Your task to perform on an android device: check battery use Image 0: 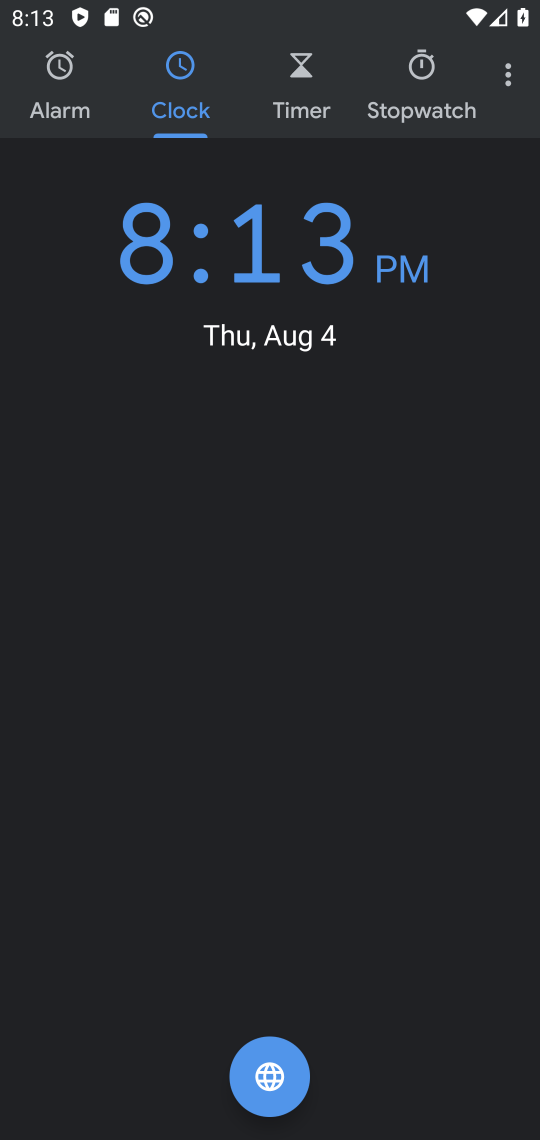
Step 0: press home button
Your task to perform on an android device: check battery use Image 1: 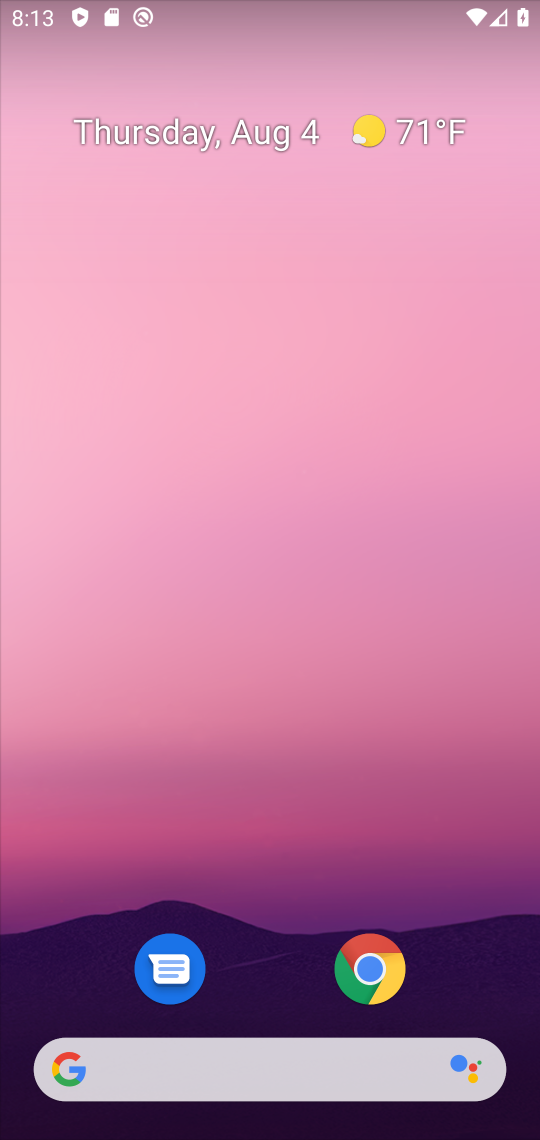
Step 1: drag from (280, 1001) to (280, 27)
Your task to perform on an android device: check battery use Image 2: 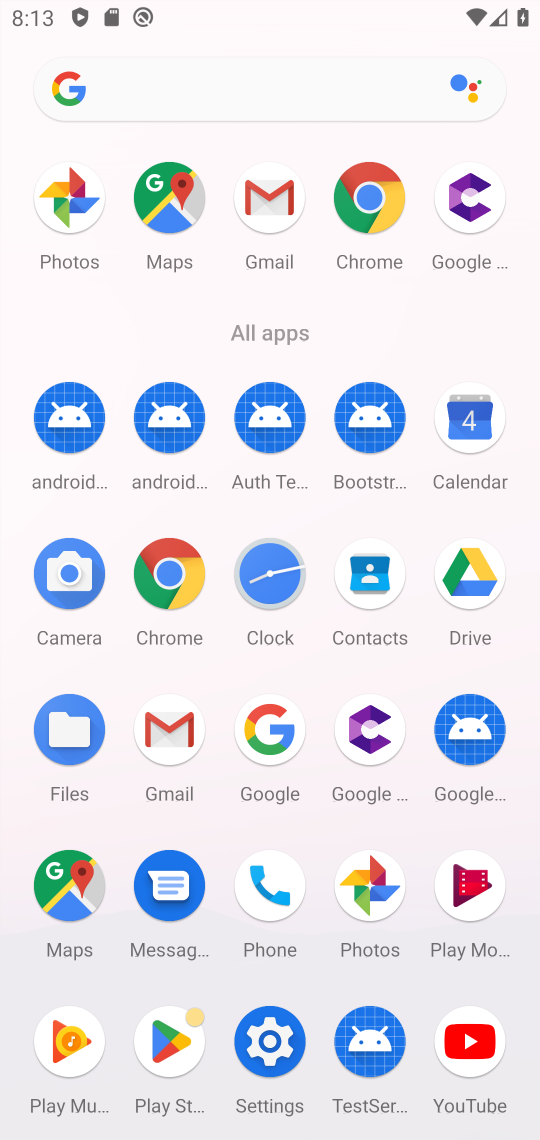
Step 2: click (265, 1036)
Your task to perform on an android device: check battery use Image 3: 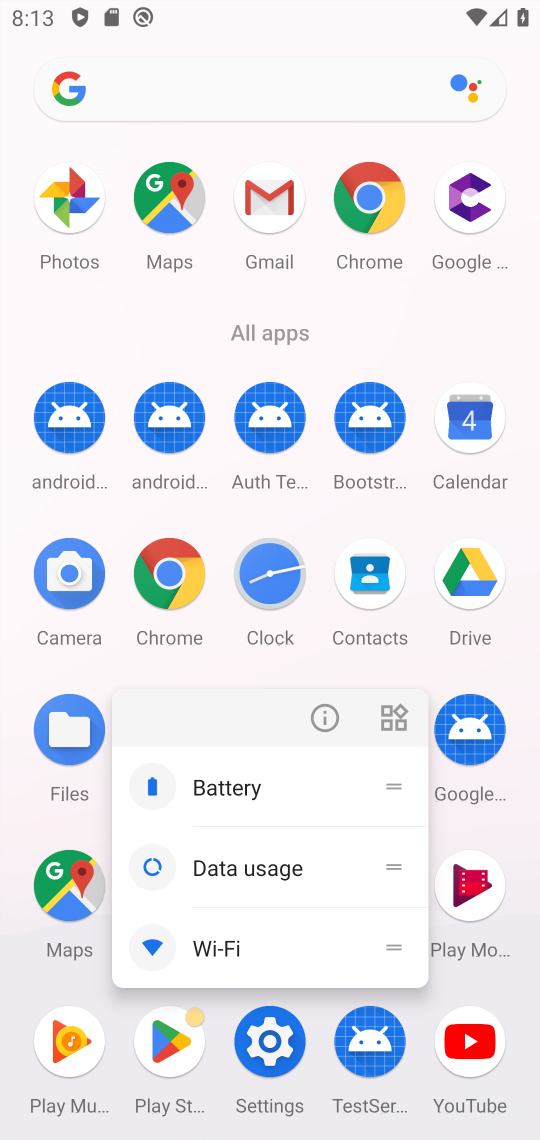
Step 3: click (268, 1028)
Your task to perform on an android device: check battery use Image 4: 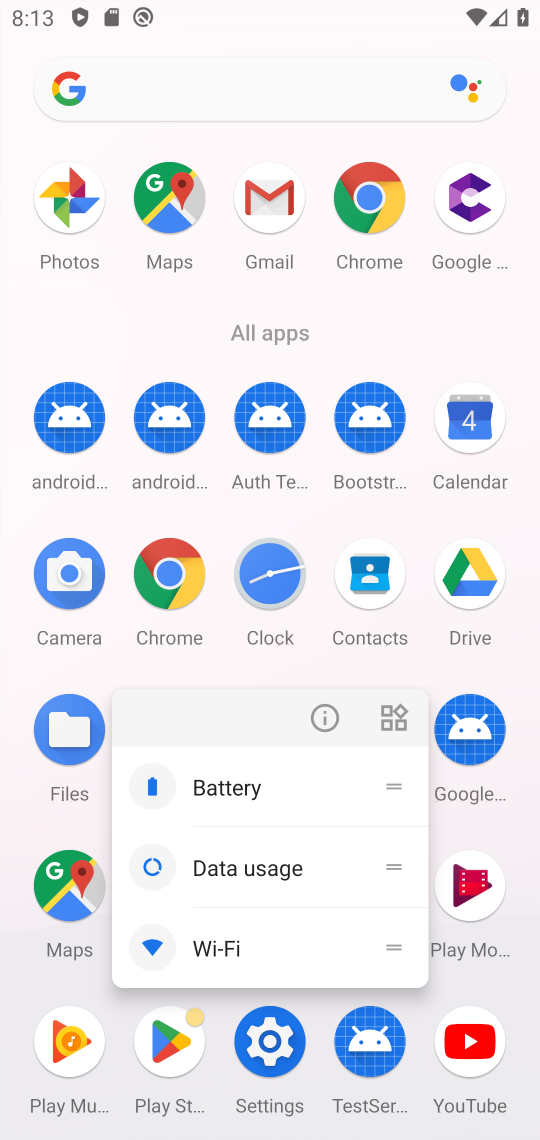
Step 4: click (268, 1027)
Your task to perform on an android device: check battery use Image 5: 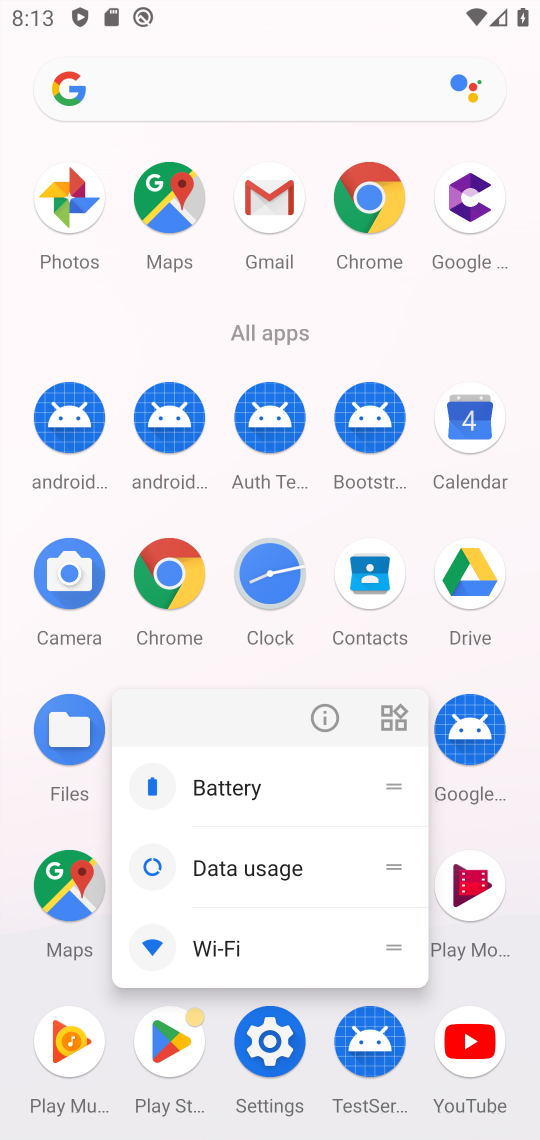
Step 5: click (263, 1037)
Your task to perform on an android device: check battery use Image 6: 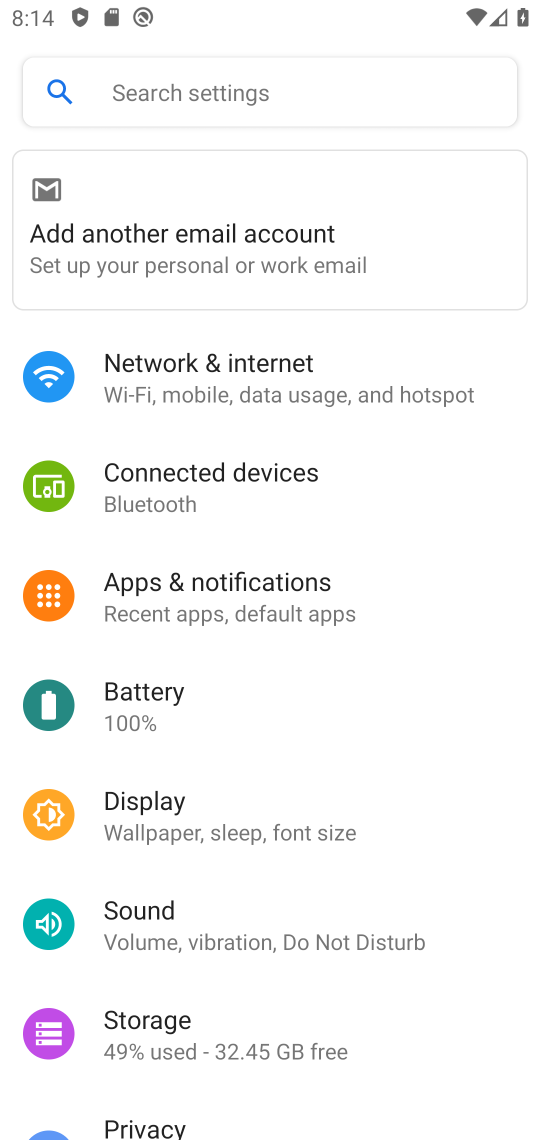
Step 6: click (208, 706)
Your task to perform on an android device: check battery use Image 7: 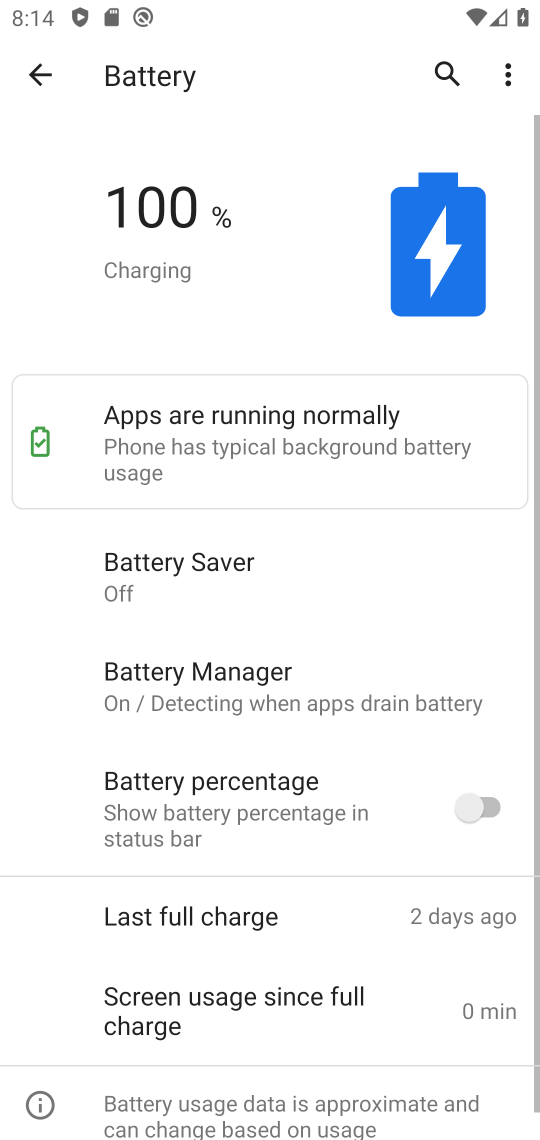
Step 7: click (509, 74)
Your task to perform on an android device: check battery use Image 8: 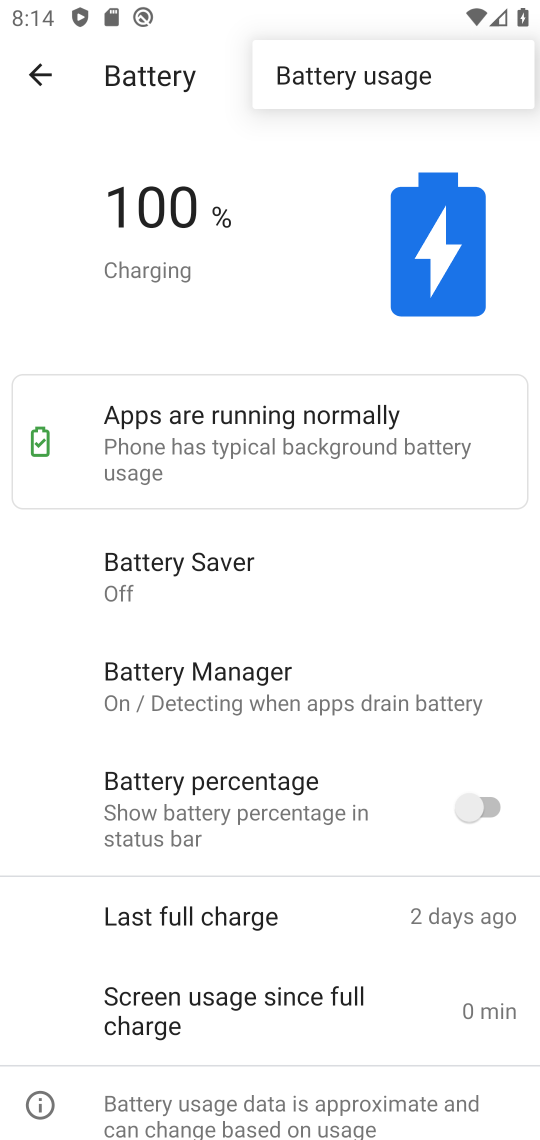
Step 8: click (364, 84)
Your task to perform on an android device: check battery use Image 9: 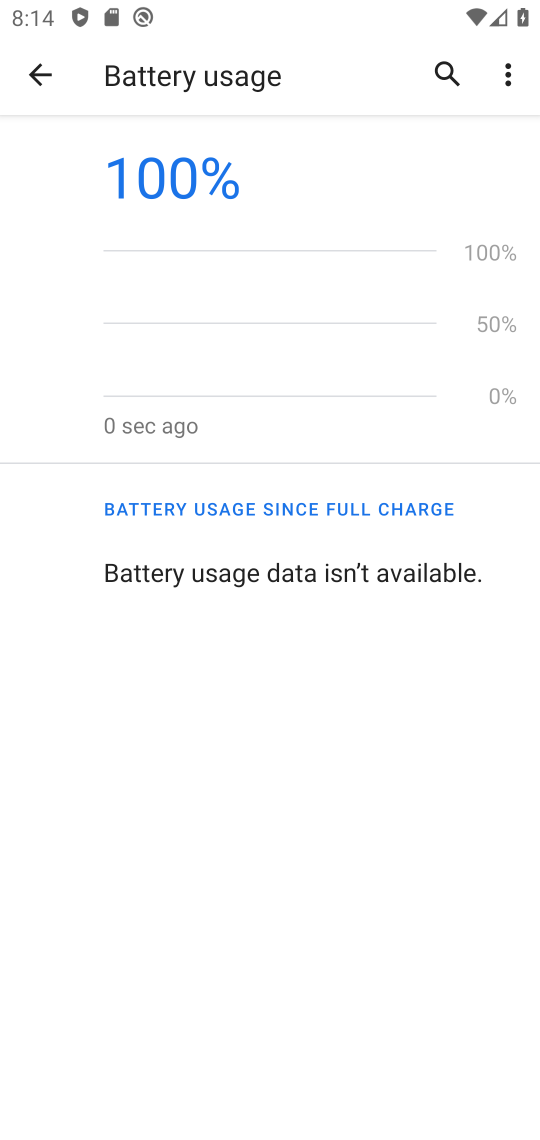
Step 9: task complete